Your task to perform on an android device: Go to battery settings Image 0: 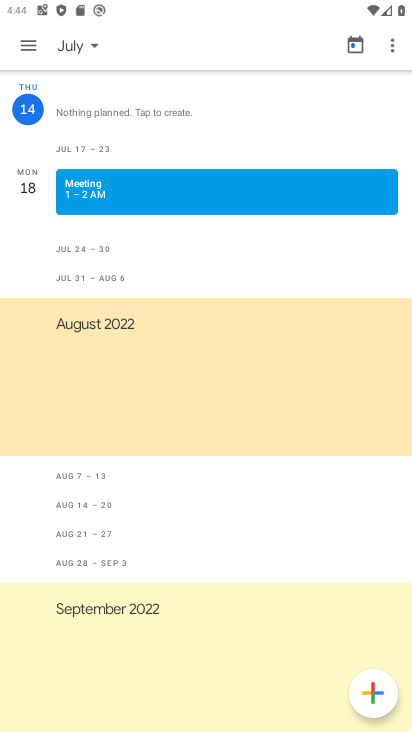
Step 0: click (41, 396)
Your task to perform on an android device: Go to battery settings Image 1: 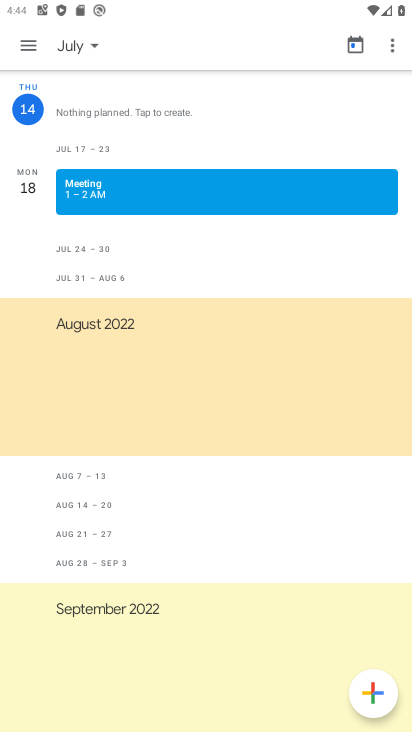
Step 1: drag from (307, 14) to (293, 526)
Your task to perform on an android device: Go to battery settings Image 2: 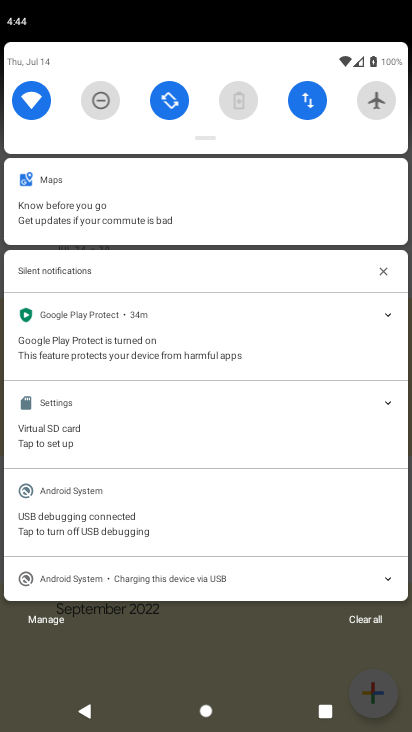
Step 2: click (240, 98)
Your task to perform on an android device: Go to battery settings Image 3: 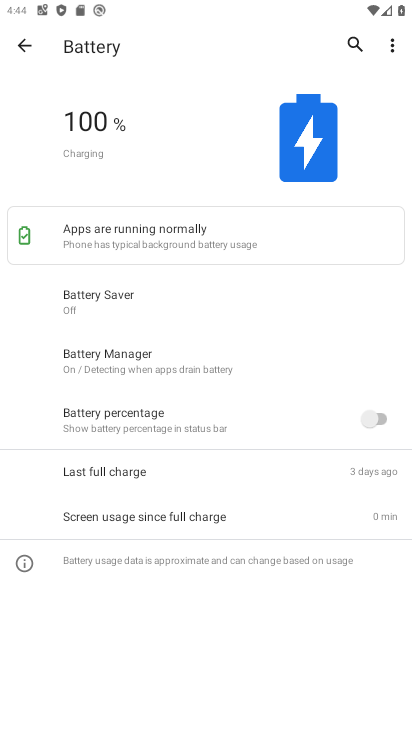
Step 3: task complete